Your task to perform on an android device: change text size in settings app Image 0: 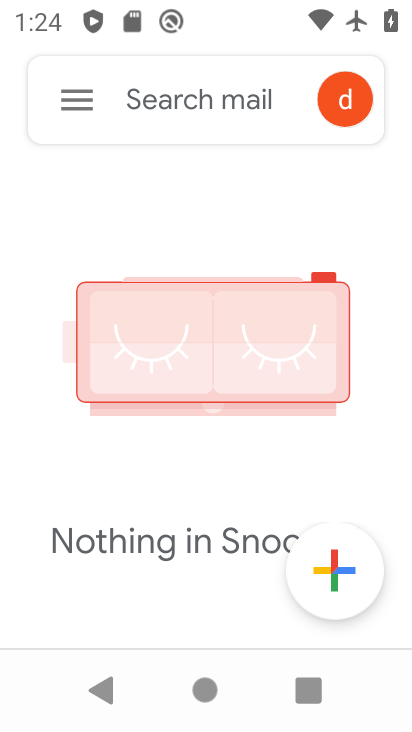
Step 0: press home button
Your task to perform on an android device: change text size in settings app Image 1: 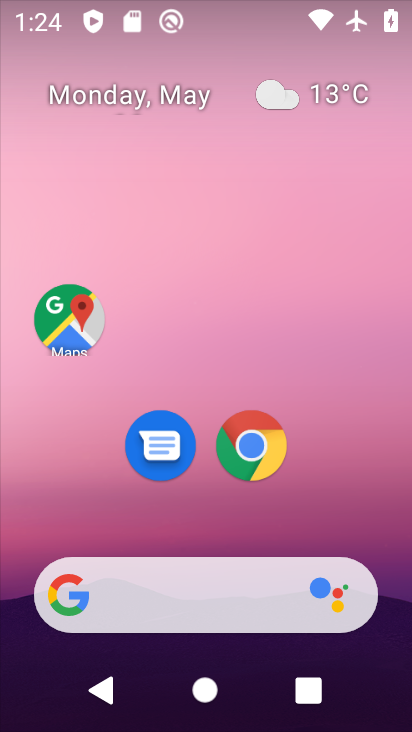
Step 1: drag from (388, 624) to (275, 60)
Your task to perform on an android device: change text size in settings app Image 2: 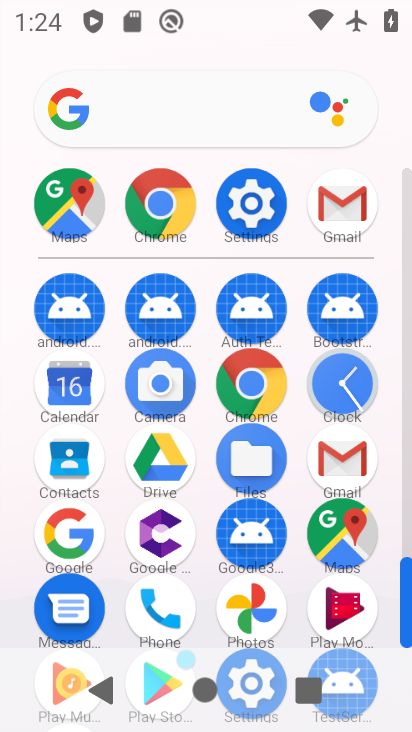
Step 2: click (244, 215)
Your task to perform on an android device: change text size in settings app Image 3: 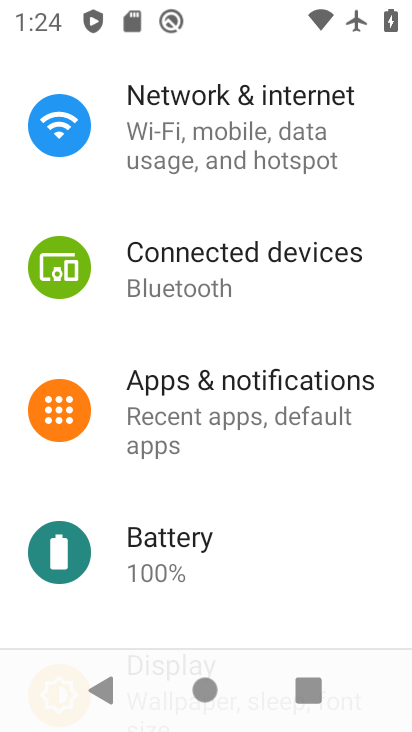
Step 3: drag from (150, 547) to (176, 219)
Your task to perform on an android device: change text size in settings app Image 4: 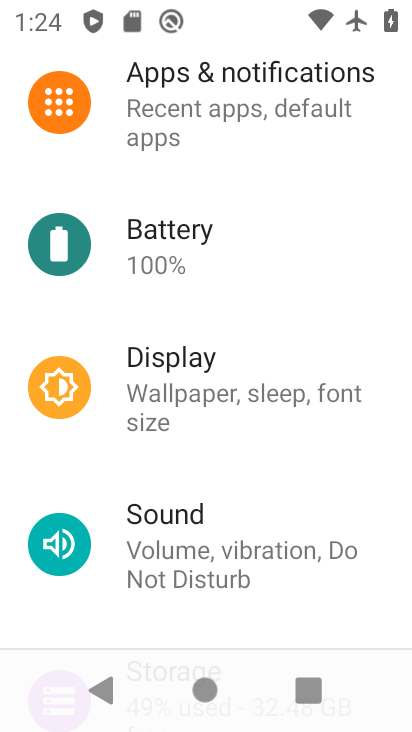
Step 4: click (210, 380)
Your task to perform on an android device: change text size in settings app Image 5: 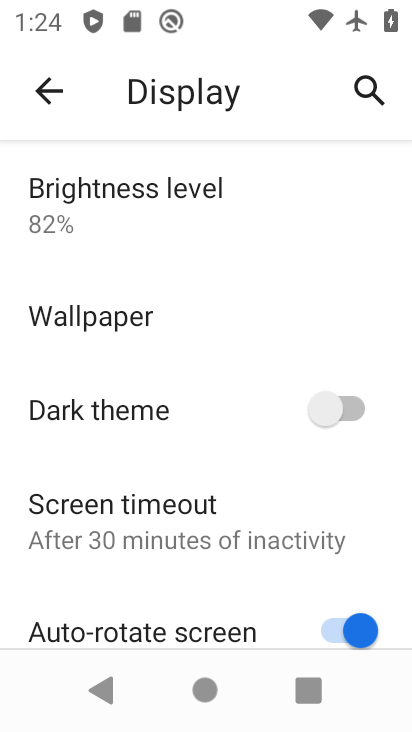
Step 5: click (170, 544)
Your task to perform on an android device: change text size in settings app Image 6: 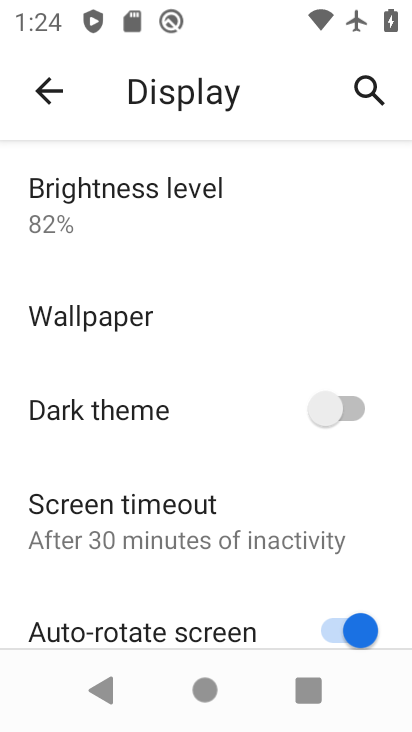
Step 6: drag from (185, 506) to (207, 223)
Your task to perform on an android device: change text size in settings app Image 7: 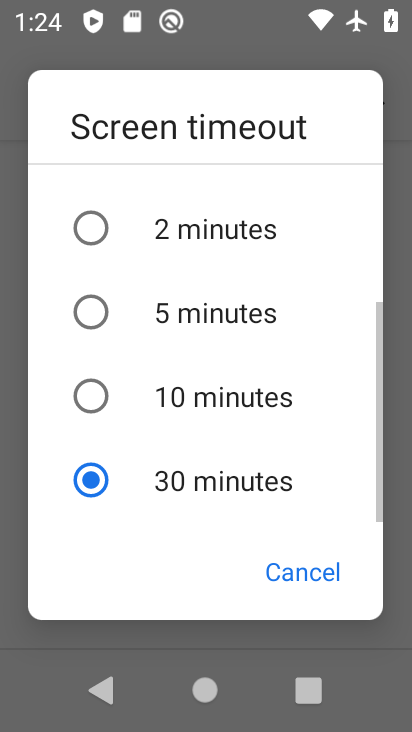
Step 7: click (330, 569)
Your task to perform on an android device: change text size in settings app Image 8: 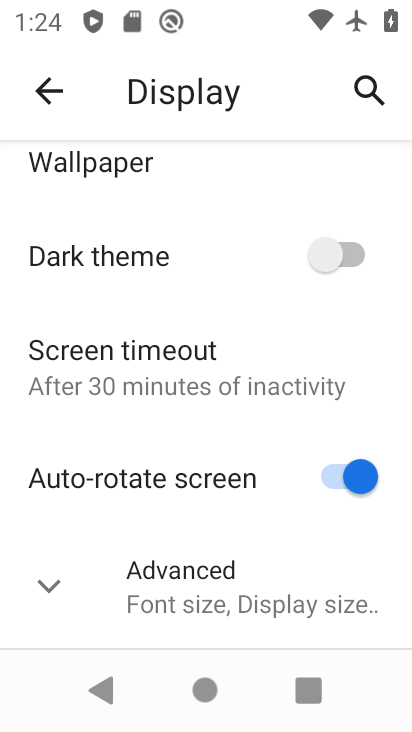
Step 8: drag from (177, 606) to (192, 283)
Your task to perform on an android device: change text size in settings app Image 9: 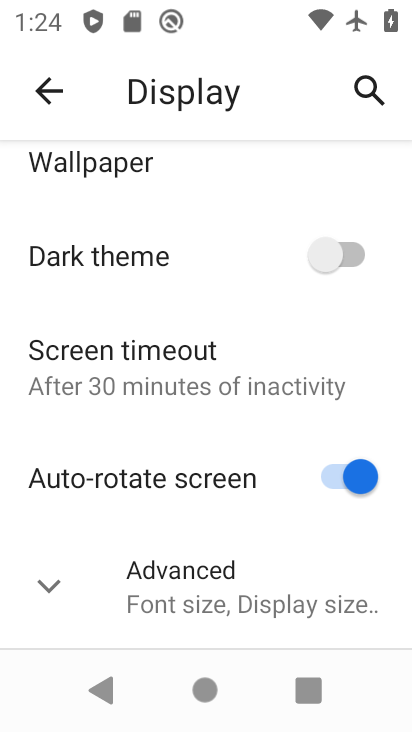
Step 9: click (79, 604)
Your task to perform on an android device: change text size in settings app Image 10: 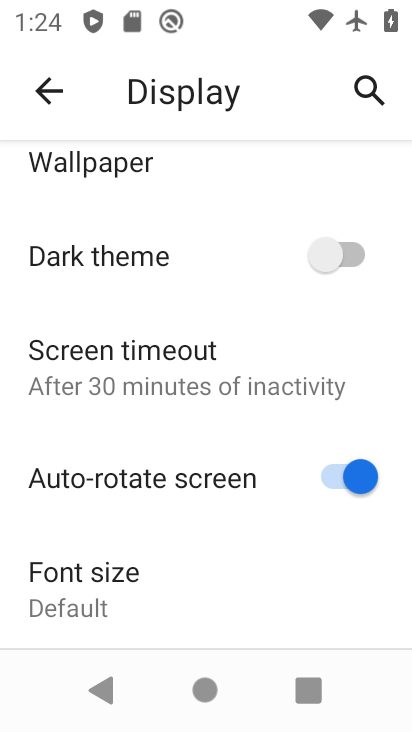
Step 10: drag from (133, 583) to (159, 380)
Your task to perform on an android device: change text size in settings app Image 11: 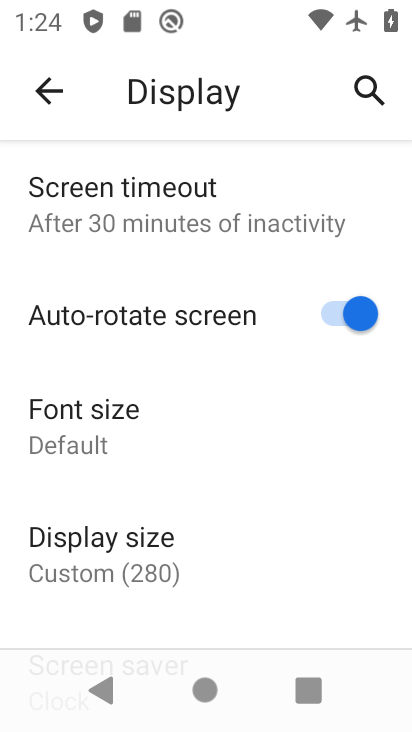
Step 11: click (178, 430)
Your task to perform on an android device: change text size in settings app Image 12: 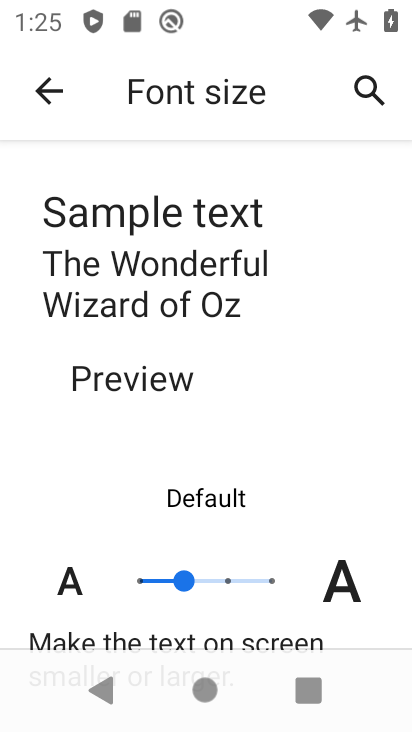
Step 12: click (227, 582)
Your task to perform on an android device: change text size in settings app Image 13: 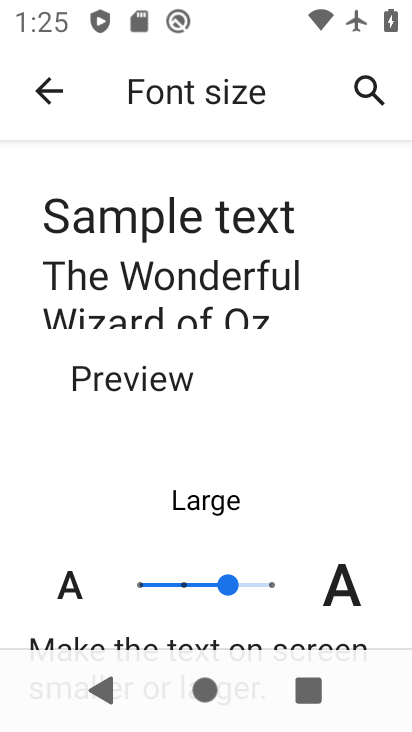
Step 13: task complete